Your task to perform on an android device: Go to sound settings Image 0: 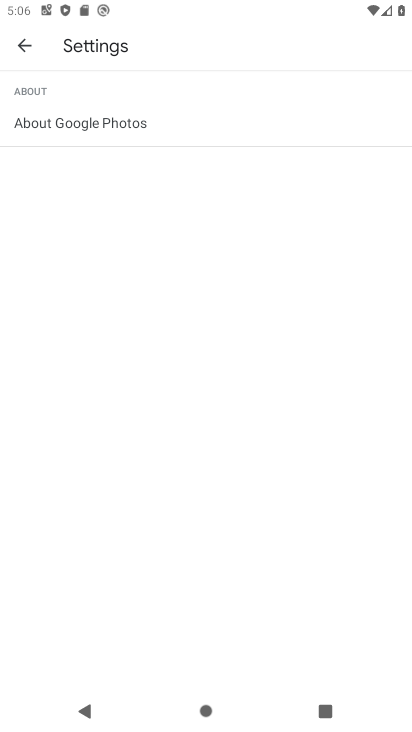
Step 0: press home button
Your task to perform on an android device: Go to sound settings Image 1: 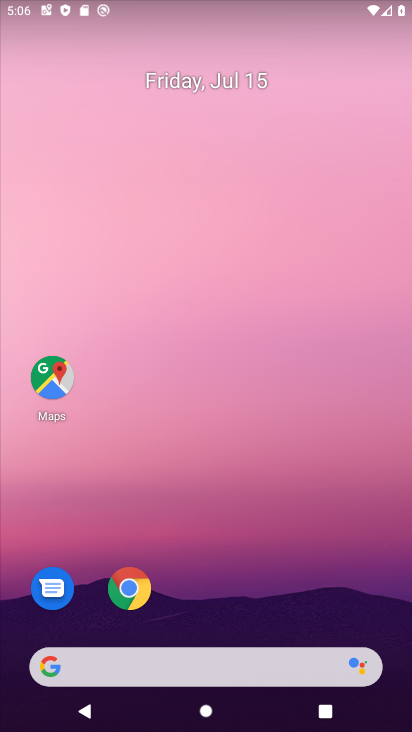
Step 1: drag from (218, 650) to (252, 133)
Your task to perform on an android device: Go to sound settings Image 2: 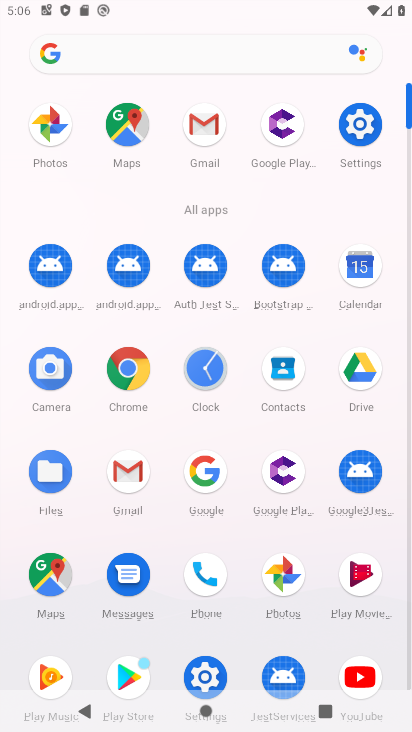
Step 2: drag from (259, 646) to (250, 433)
Your task to perform on an android device: Go to sound settings Image 3: 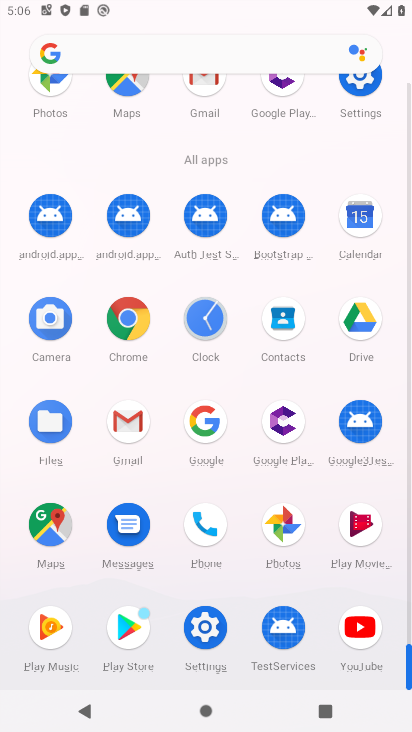
Step 3: click (197, 627)
Your task to perform on an android device: Go to sound settings Image 4: 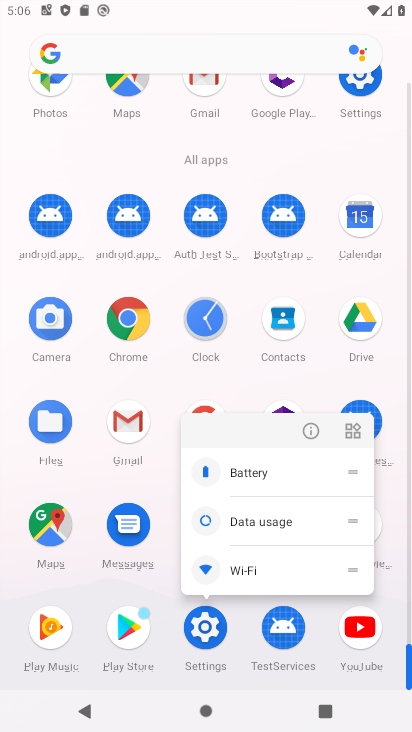
Step 4: click (211, 639)
Your task to perform on an android device: Go to sound settings Image 5: 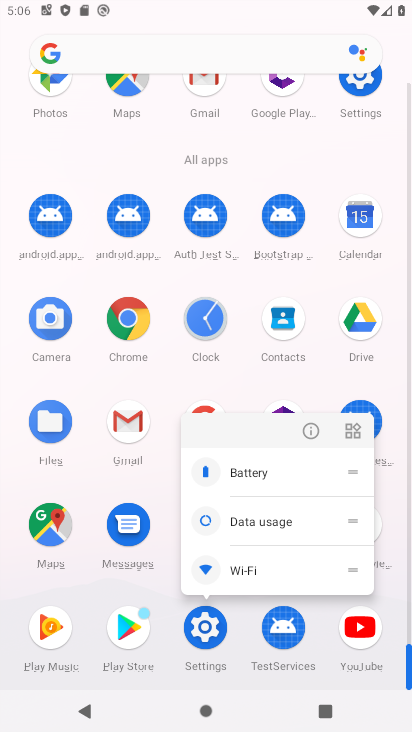
Step 5: click (203, 623)
Your task to perform on an android device: Go to sound settings Image 6: 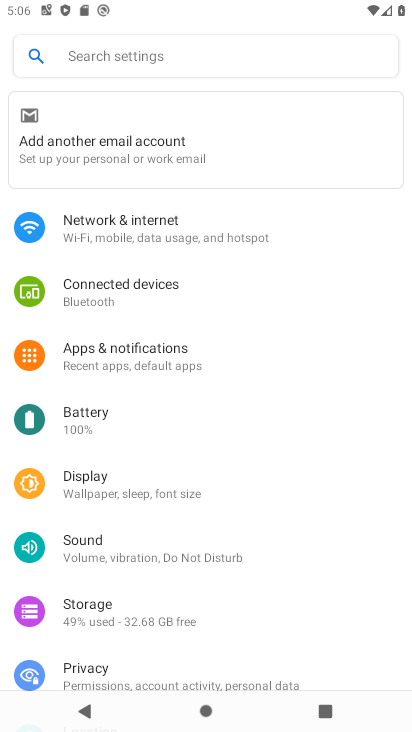
Step 6: click (102, 550)
Your task to perform on an android device: Go to sound settings Image 7: 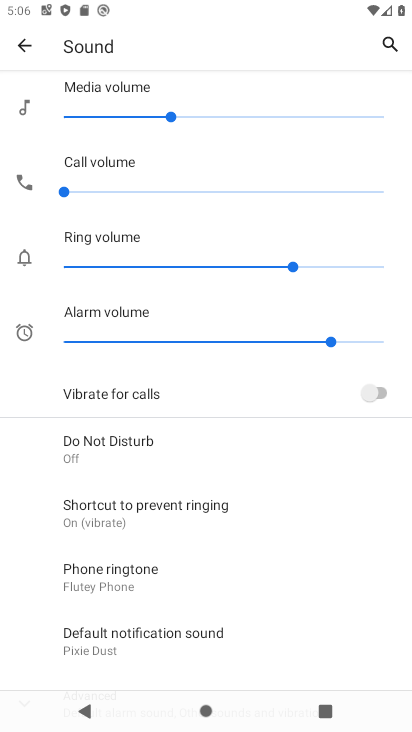
Step 7: task complete